Your task to perform on an android device: Open calendar and show me the fourth week of next month Image 0: 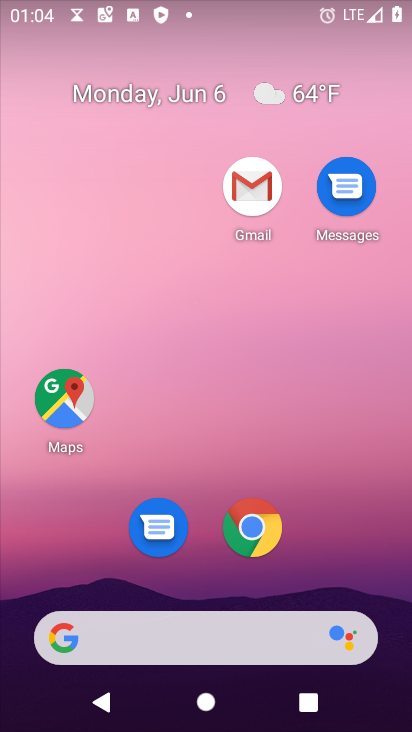
Step 0: drag from (333, 476) to (300, 64)
Your task to perform on an android device: Open calendar and show me the fourth week of next month Image 1: 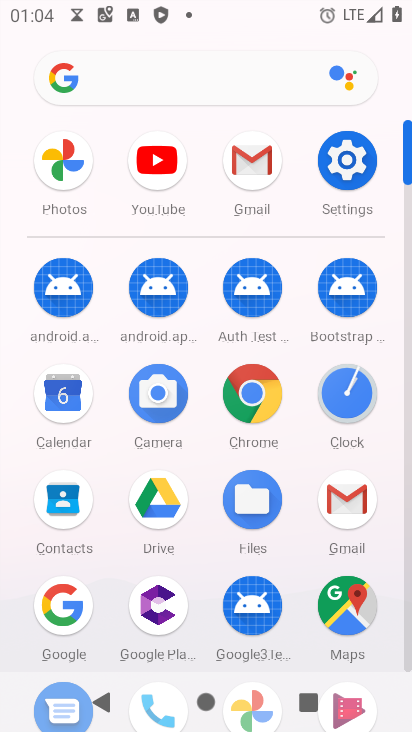
Step 1: click (68, 398)
Your task to perform on an android device: Open calendar and show me the fourth week of next month Image 2: 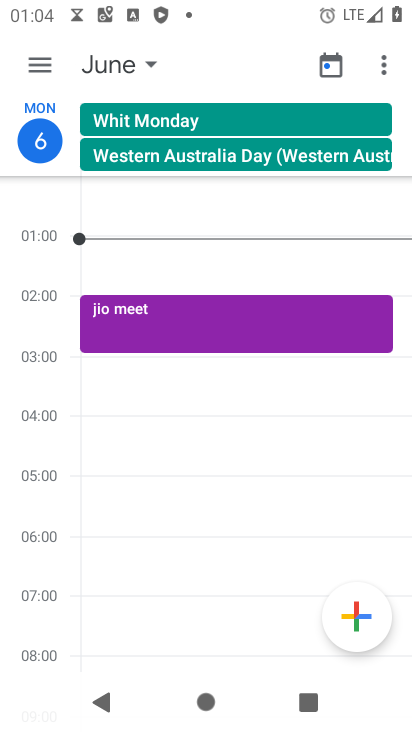
Step 2: click (24, 38)
Your task to perform on an android device: Open calendar and show me the fourth week of next month Image 3: 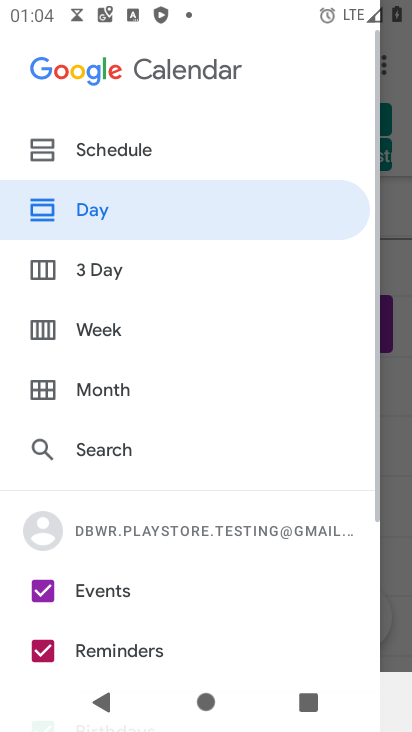
Step 3: click (167, 362)
Your task to perform on an android device: Open calendar and show me the fourth week of next month Image 4: 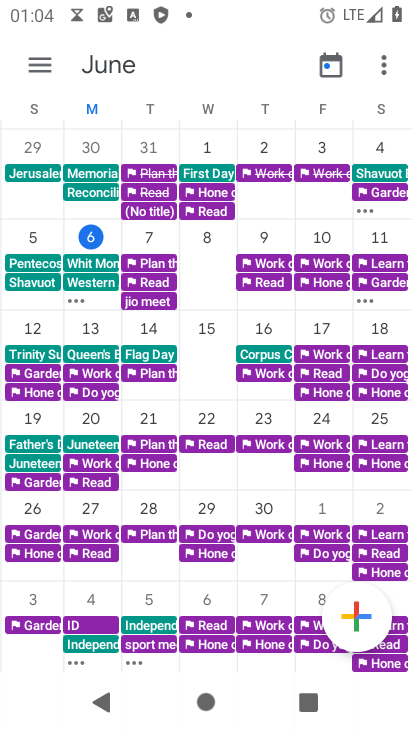
Step 4: drag from (351, 254) to (45, 259)
Your task to perform on an android device: Open calendar and show me the fourth week of next month Image 5: 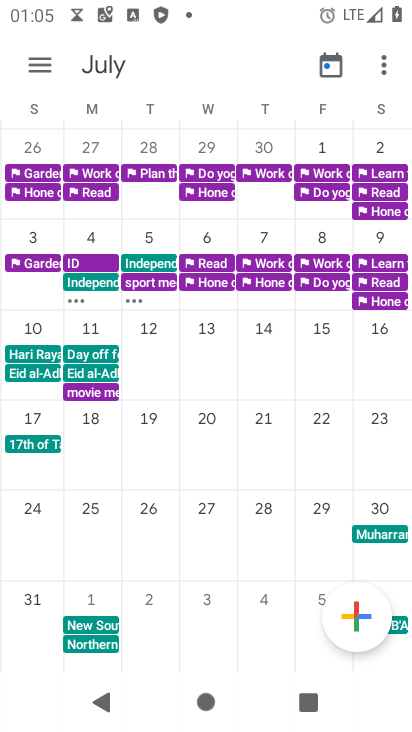
Step 5: click (46, 369)
Your task to perform on an android device: Open calendar and show me the fourth week of next month Image 6: 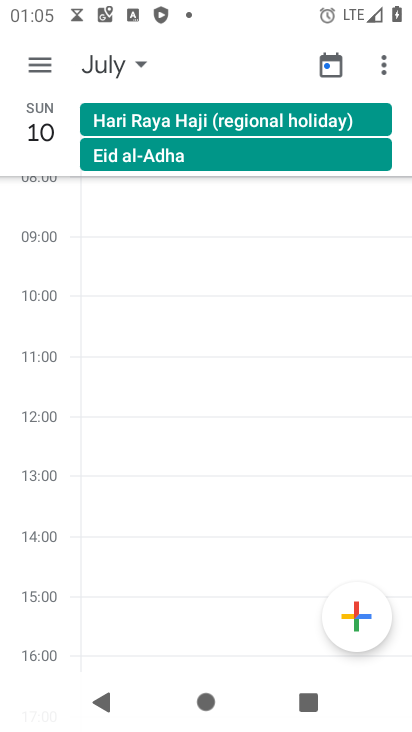
Step 6: drag from (202, 567) to (207, 276)
Your task to perform on an android device: Open calendar and show me the fourth week of next month Image 7: 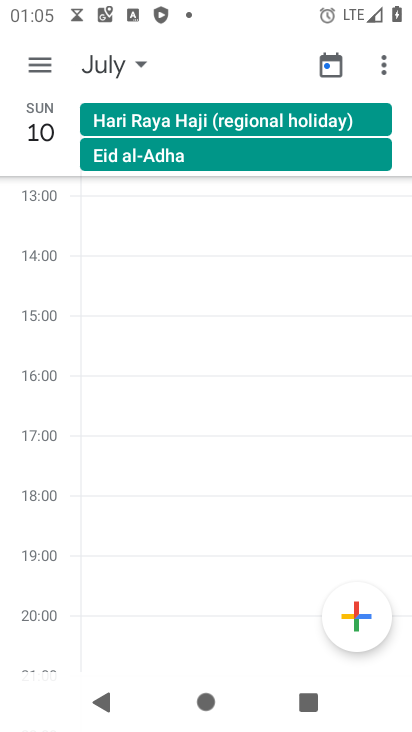
Step 7: drag from (160, 516) to (143, 312)
Your task to perform on an android device: Open calendar and show me the fourth week of next month Image 8: 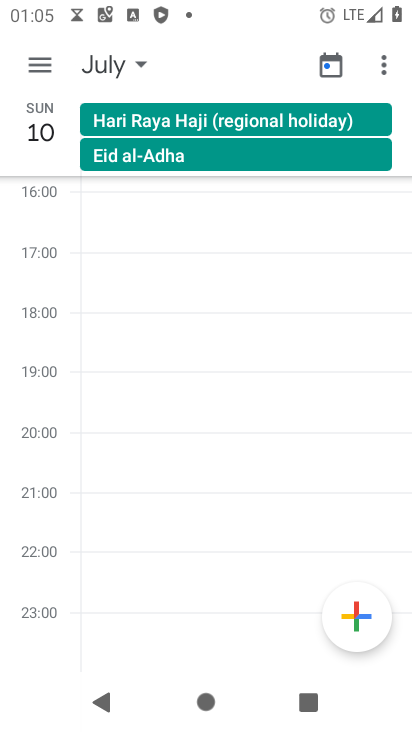
Step 8: click (118, 66)
Your task to perform on an android device: Open calendar and show me the fourth week of next month Image 9: 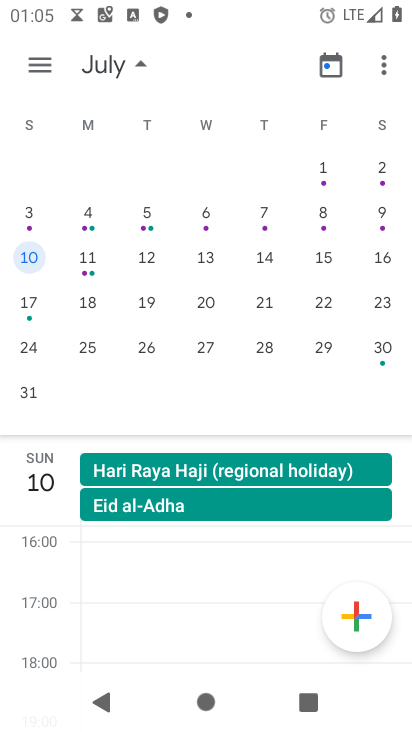
Step 9: task complete